Your task to perform on an android device: Show the shopping cart on bestbuy. Add razer huntsman to the cart on bestbuy Image 0: 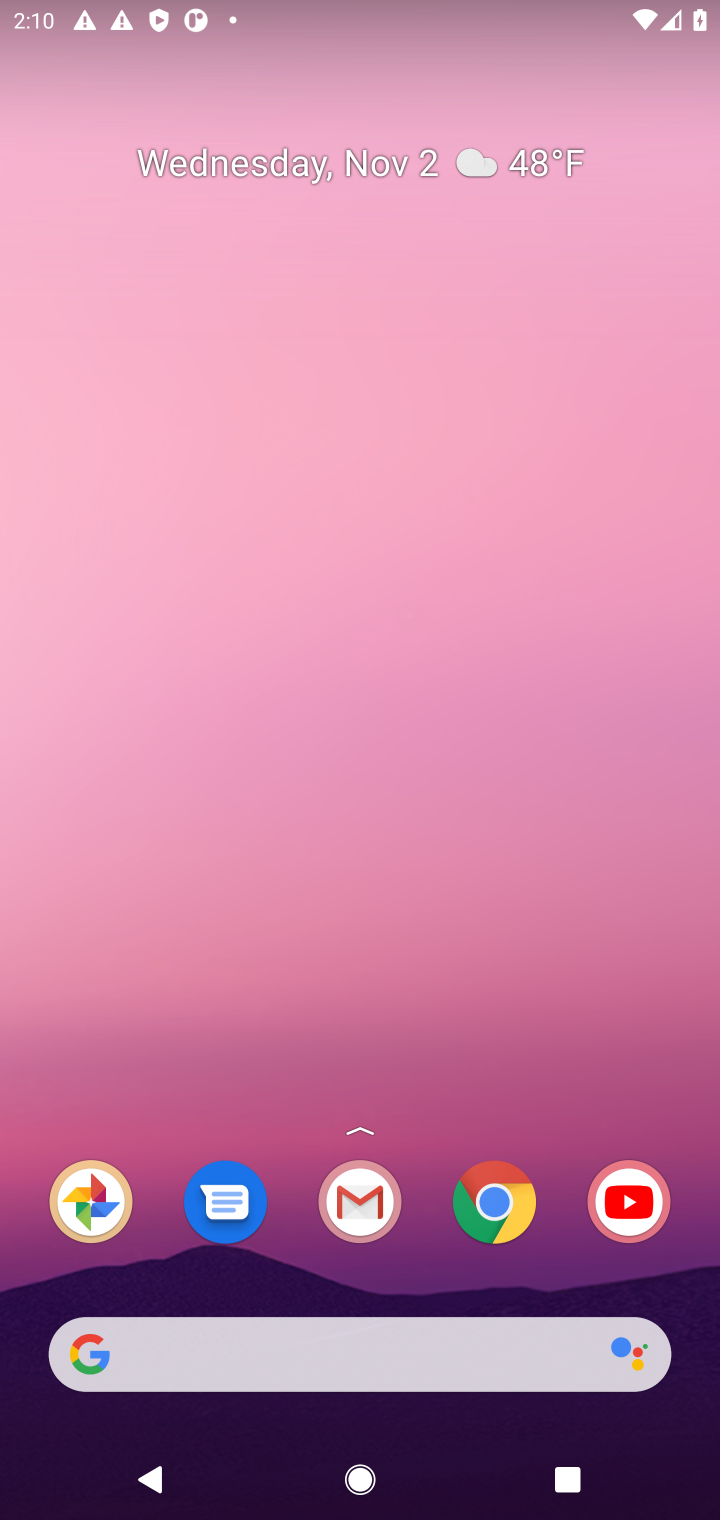
Step 0: click (497, 1181)
Your task to perform on an android device: Show the shopping cart on bestbuy. Add razer huntsman to the cart on bestbuy Image 1: 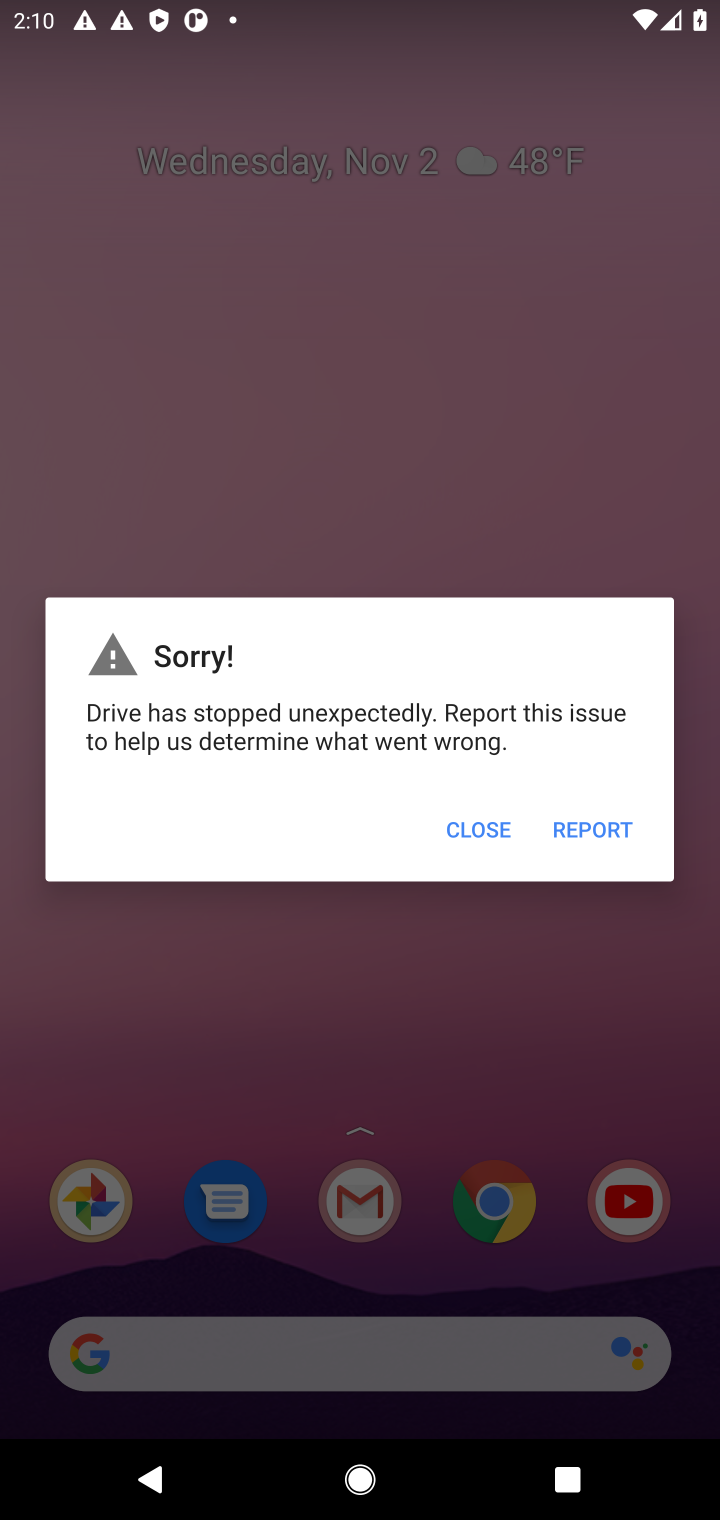
Step 1: press home button
Your task to perform on an android device: Show the shopping cart on bestbuy. Add razer huntsman to the cart on bestbuy Image 2: 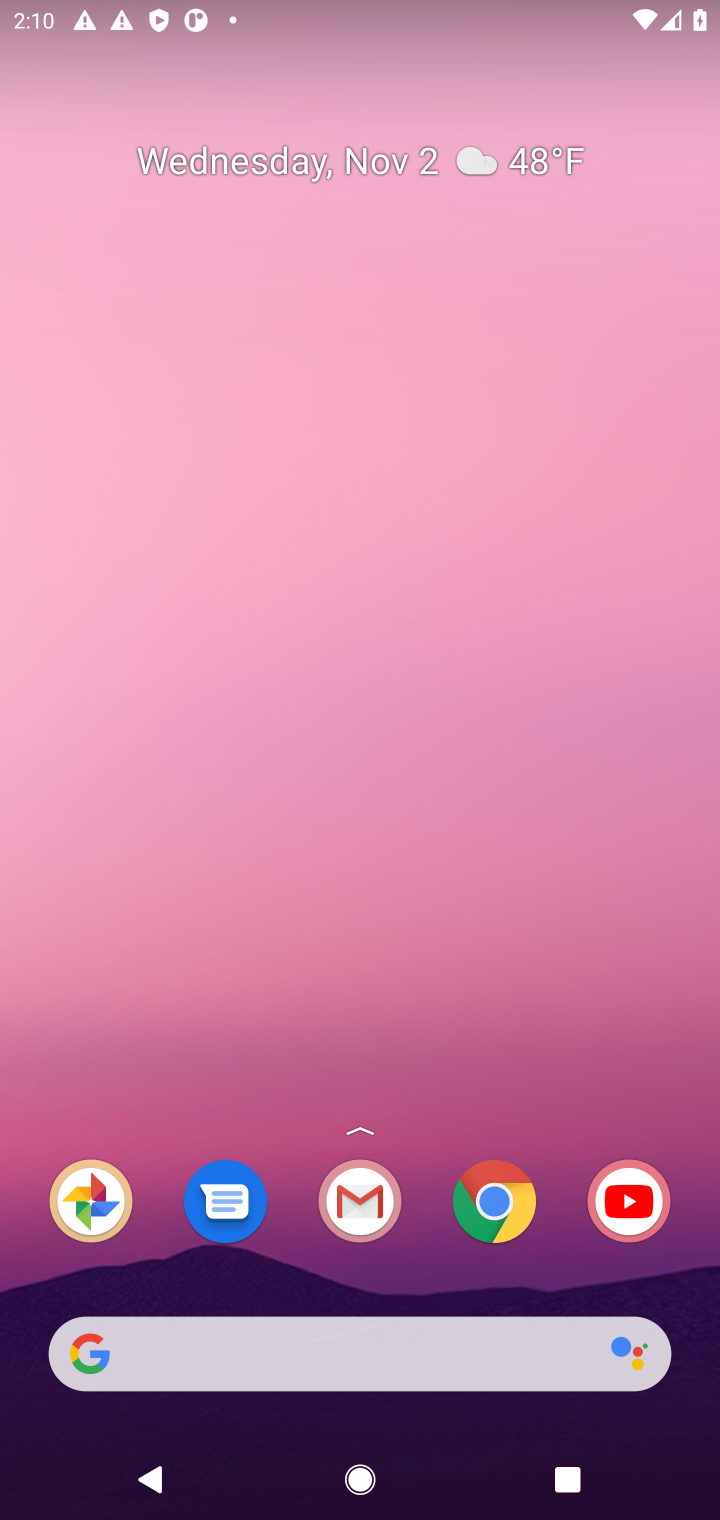
Step 2: click (485, 1206)
Your task to perform on an android device: Show the shopping cart on bestbuy. Add razer huntsman to the cart on bestbuy Image 3: 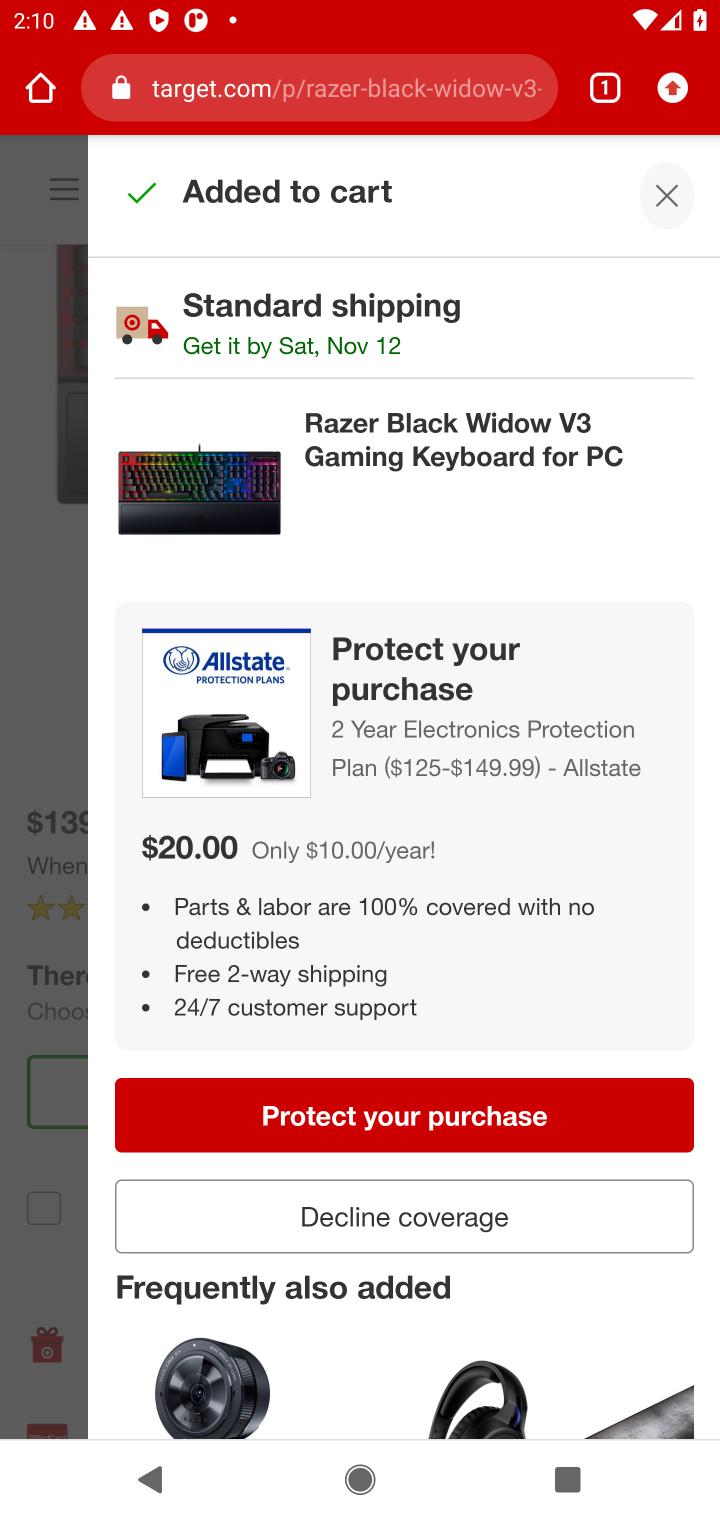
Step 3: click (382, 84)
Your task to perform on an android device: Show the shopping cart on bestbuy. Add razer huntsman to the cart on bestbuy Image 4: 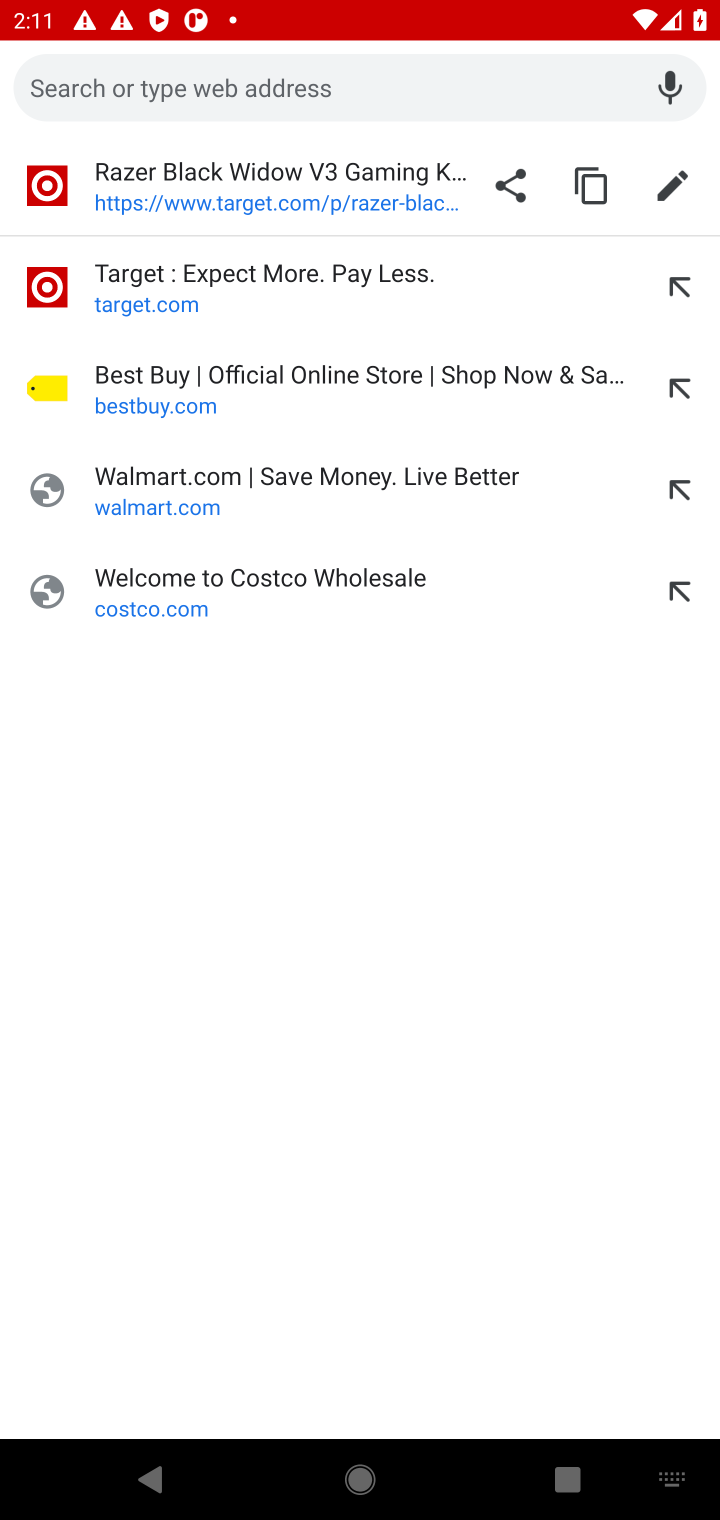
Step 4: click (171, 378)
Your task to perform on an android device: Show the shopping cart on bestbuy. Add razer huntsman to the cart on bestbuy Image 5: 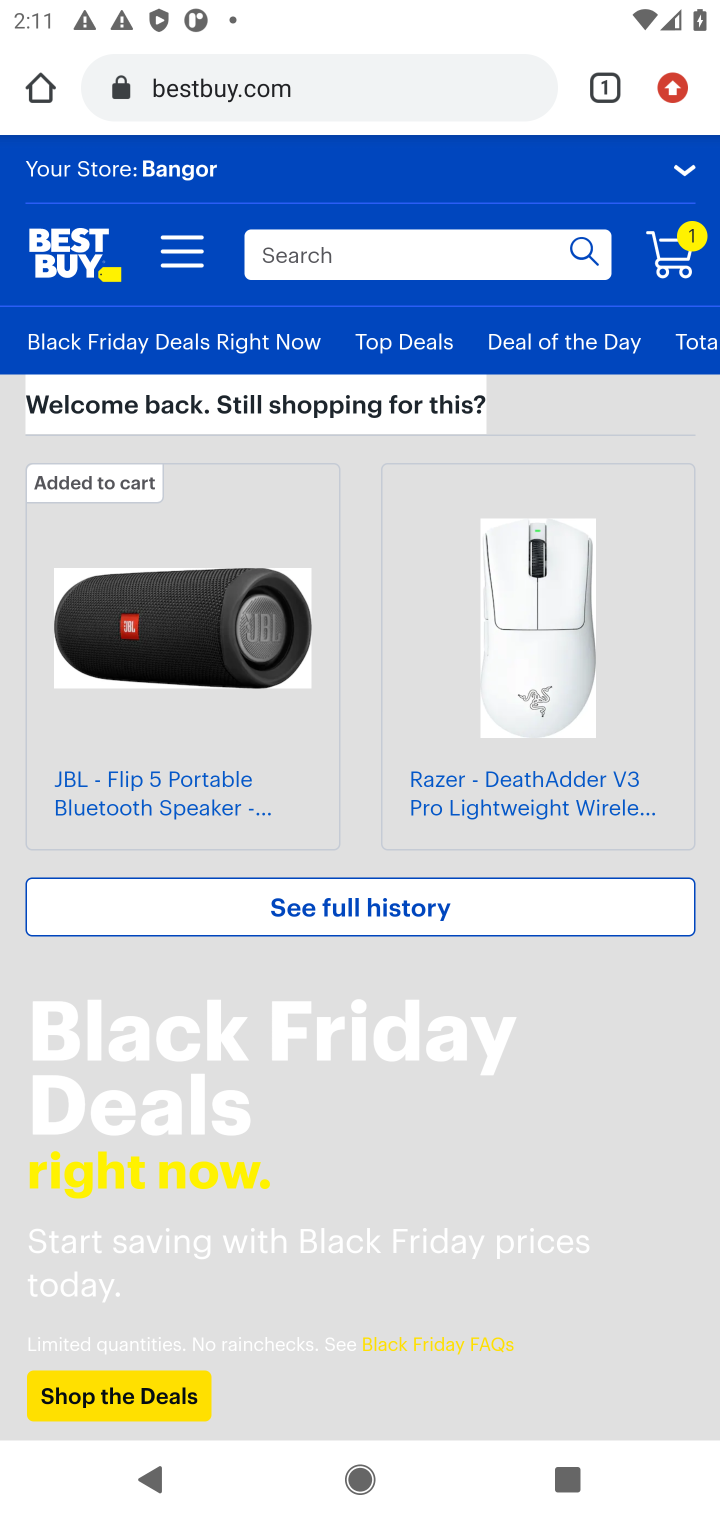
Step 5: click (443, 249)
Your task to perform on an android device: Show the shopping cart on bestbuy. Add razer huntsman to the cart on bestbuy Image 6: 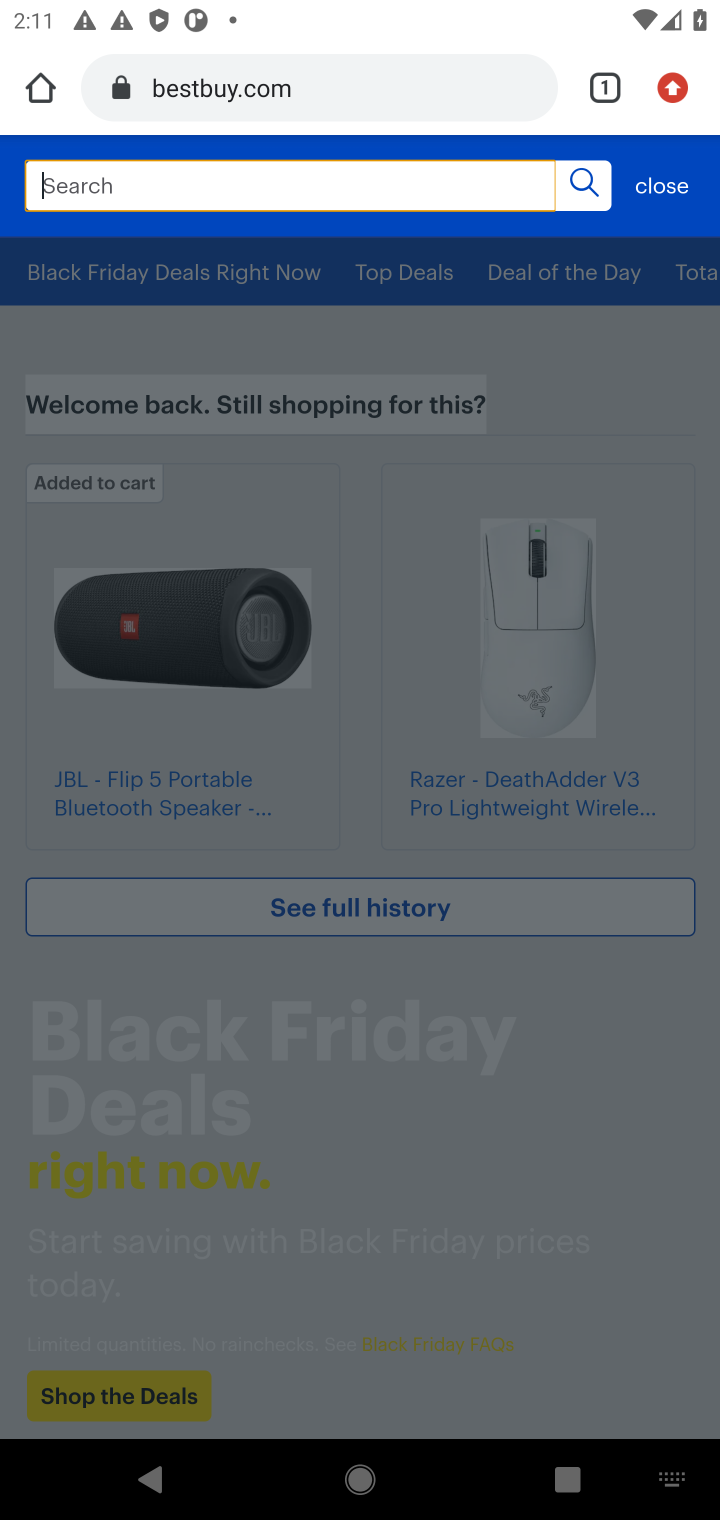
Step 6: type "razer huntsman"
Your task to perform on an android device: Show the shopping cart on bestbuy. Add razer huntsman to the cart on bestbuy Image 7: 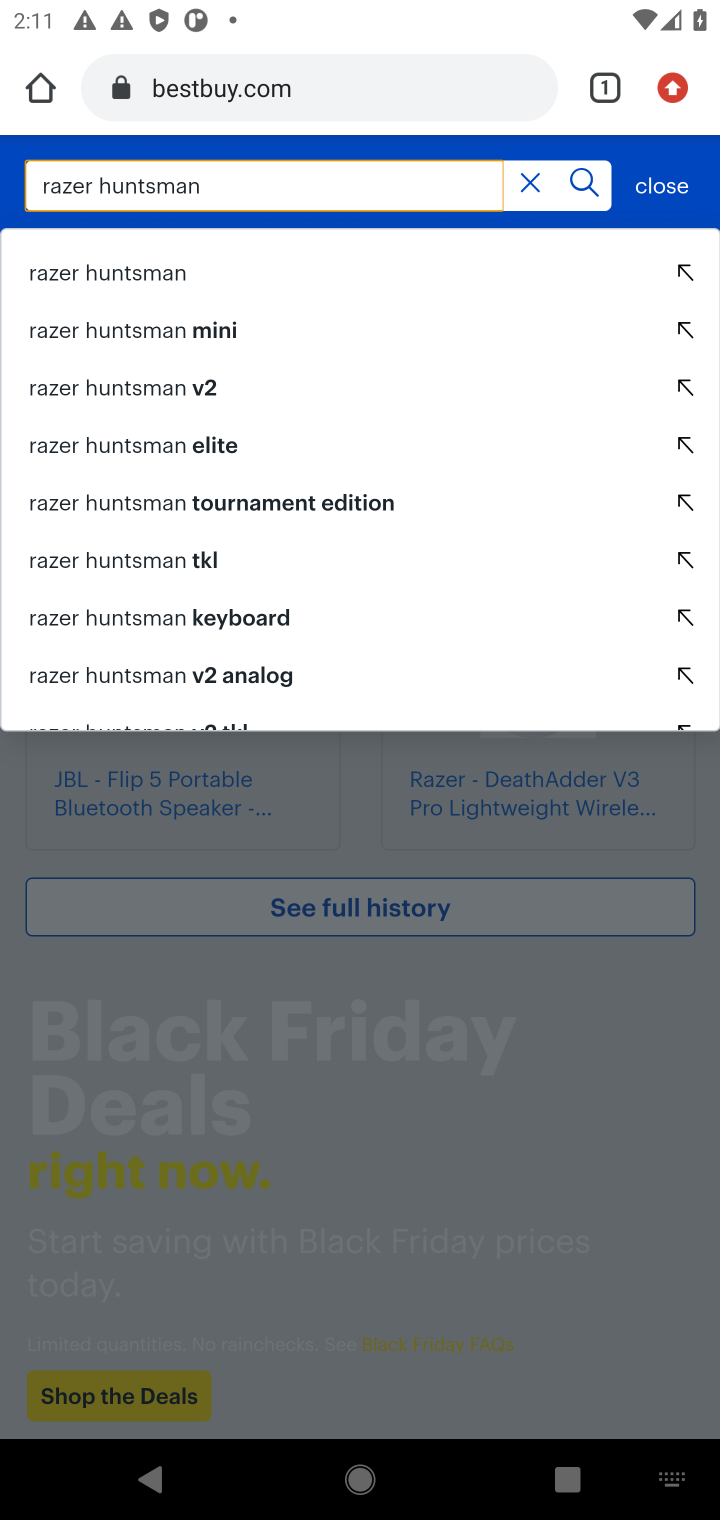
Step 7: click (105, 271)
Your task to perform on an android device: Show the shopping cart on bestbuy. Add razer huntsman to the cart on bestbuy Image 8: 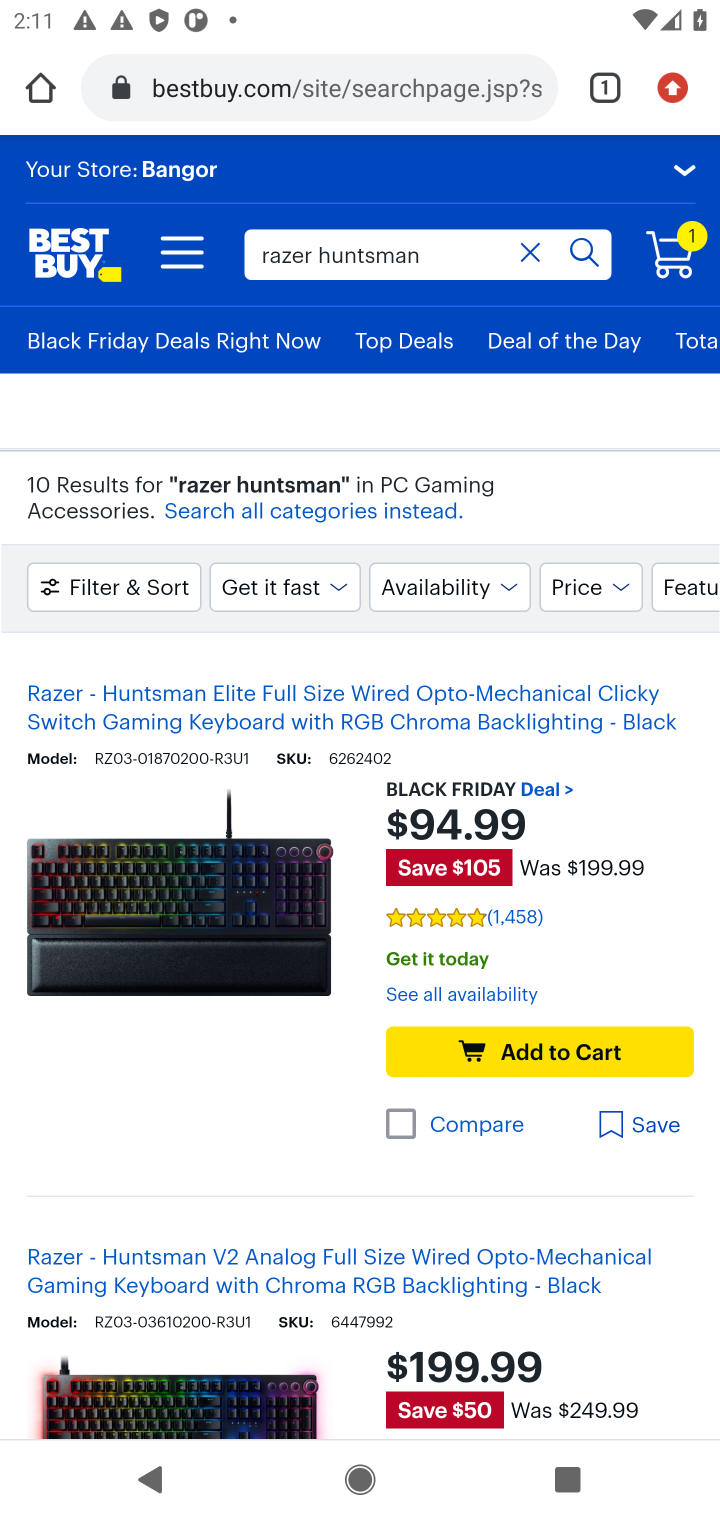
Step 8: click (162, 906)
Your task to perform on an android device: Show the shopping cart on bestbuy. Add razer huntsman to the cart on bestbuy Image 9: 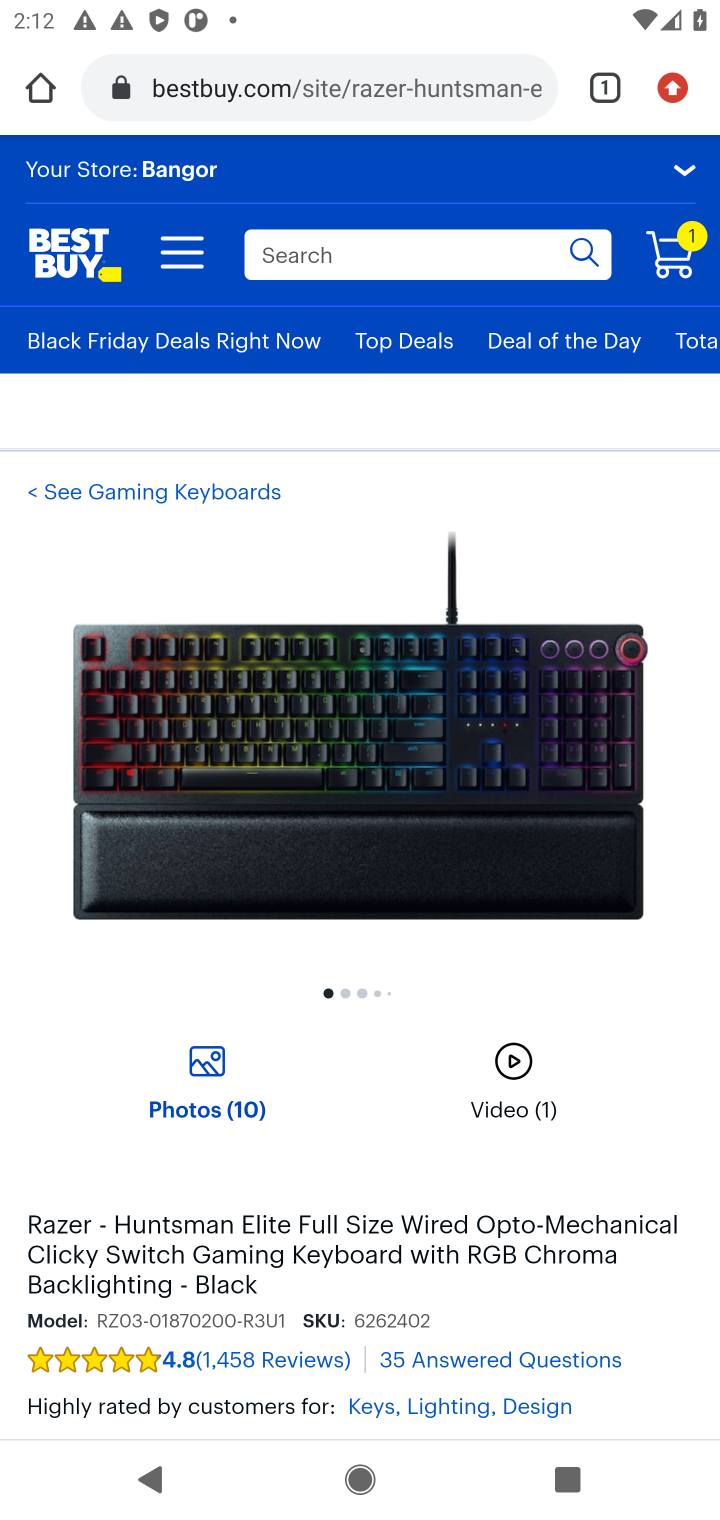
Step 9: drag from (307, 1092) to (405, 504)
Your task to perform on an android device: Show the shopping cart on bestbuy. Add razer huntsman to the cart on bestbuy Image 10: 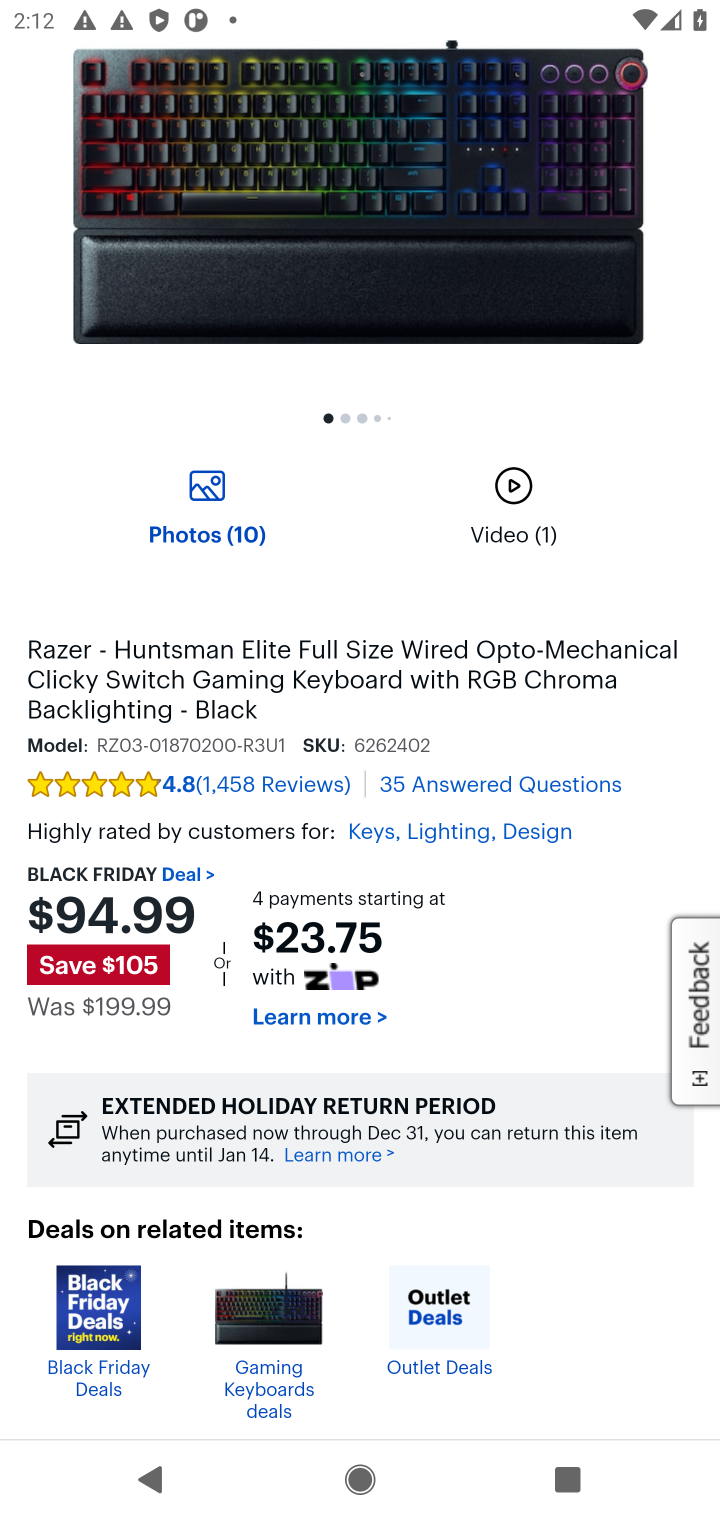
Step 10: drag from (521, 947) to (511, 581)
Your task to perform on an android device: Show the shopping cart on bestbuy. Add razer huntsman to the cart on bestbuy Image 11: 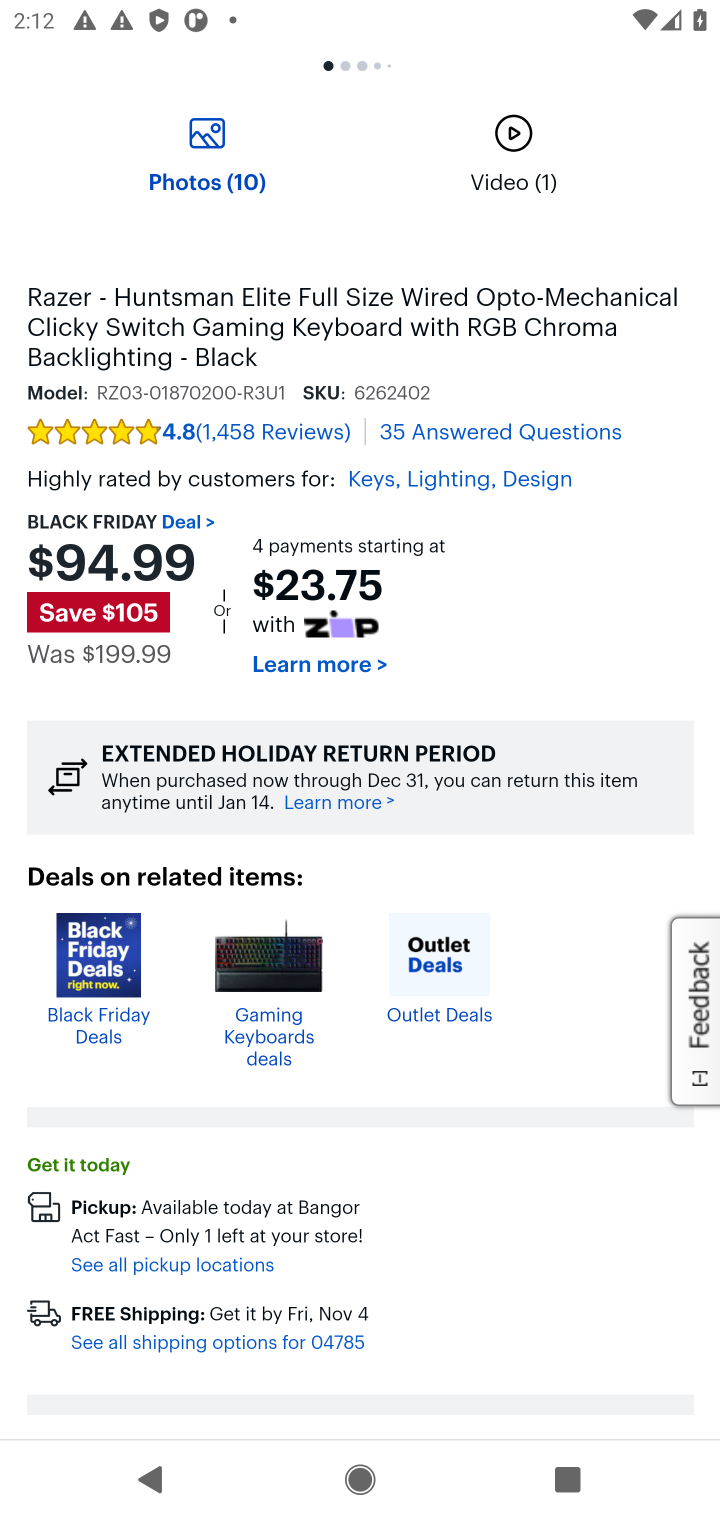
Step 11: drag from (520, 1287) to (534, 758)
Your task to perform on an android device: Show the shopping cart on bestbuy. Add razer huntsman to the cart on bestbuy Image 12: 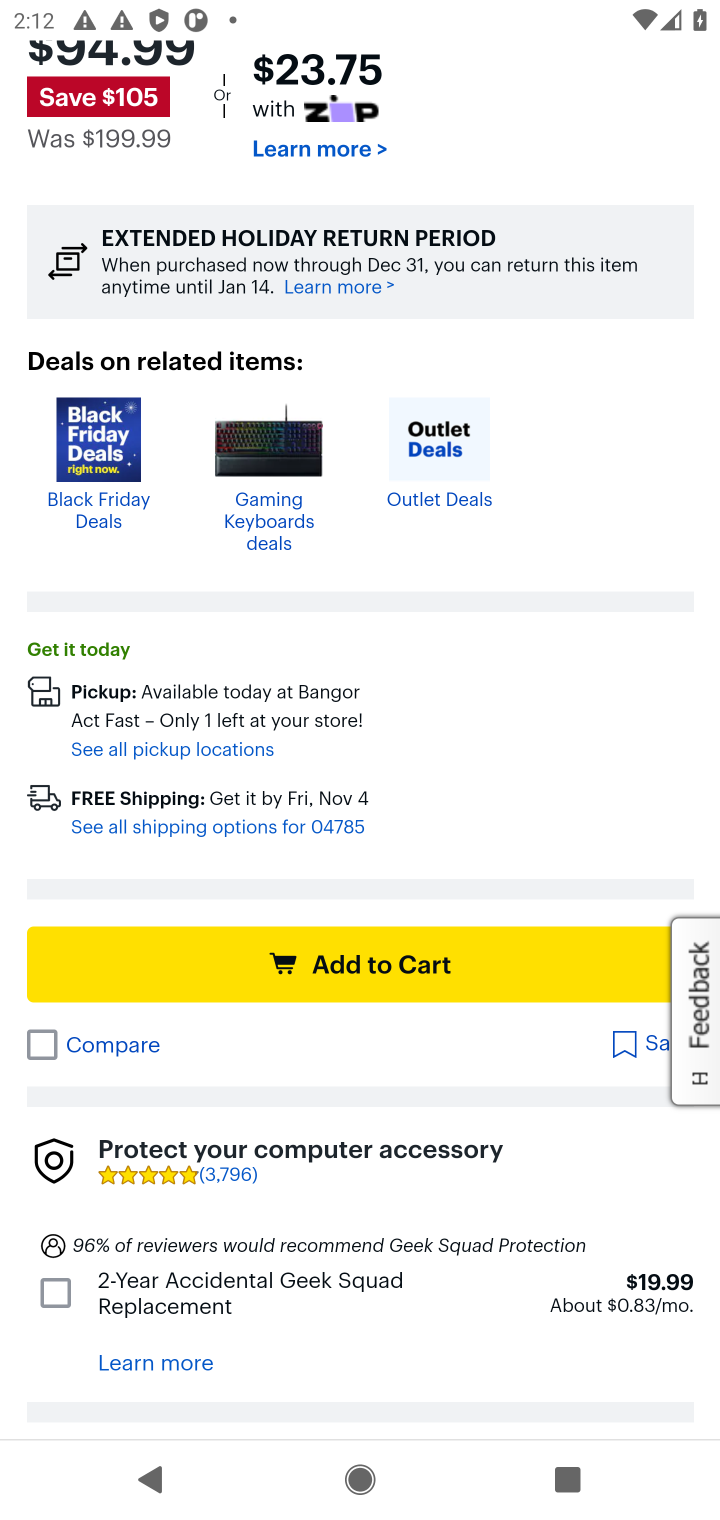
Step 12: click (357, 963)
Your task to perform on an android device: Show the shopping cart on bestbuy. Add razer huntsman to the cart on bestbuy Image 13: 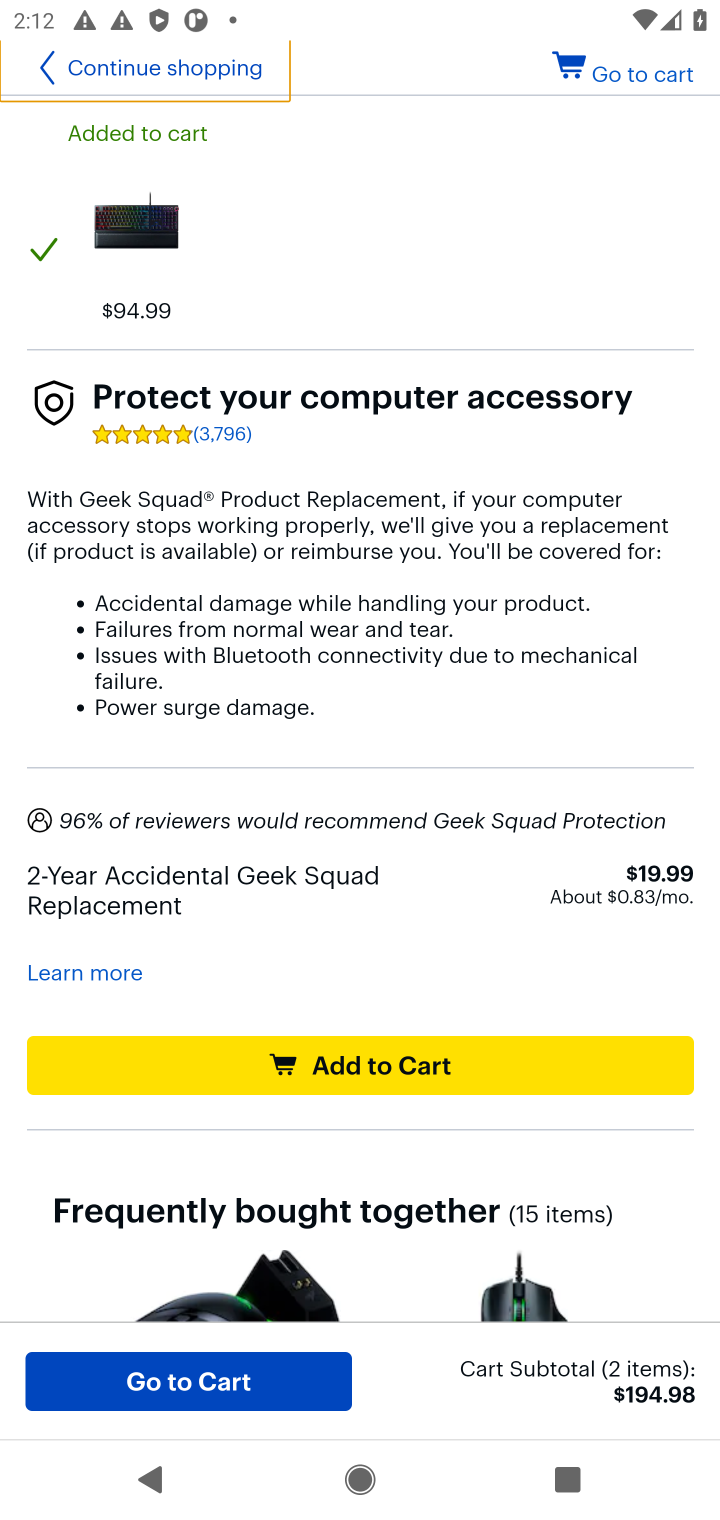
Step 13: task complete